Your task to perform on an android device: Open privacy settings Image 0: 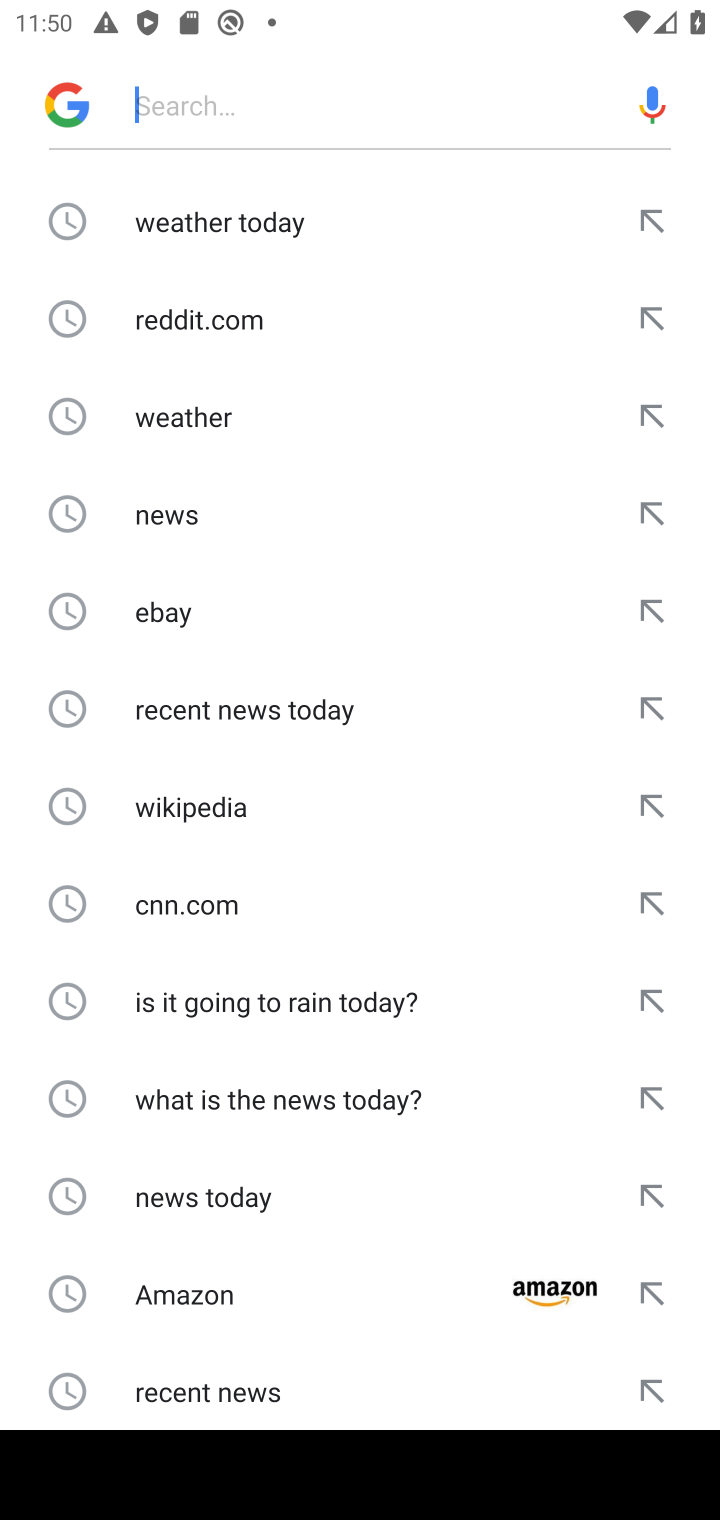
Step 0: press home button
Your task to perform on an android device: Open privacy settings Image 1: 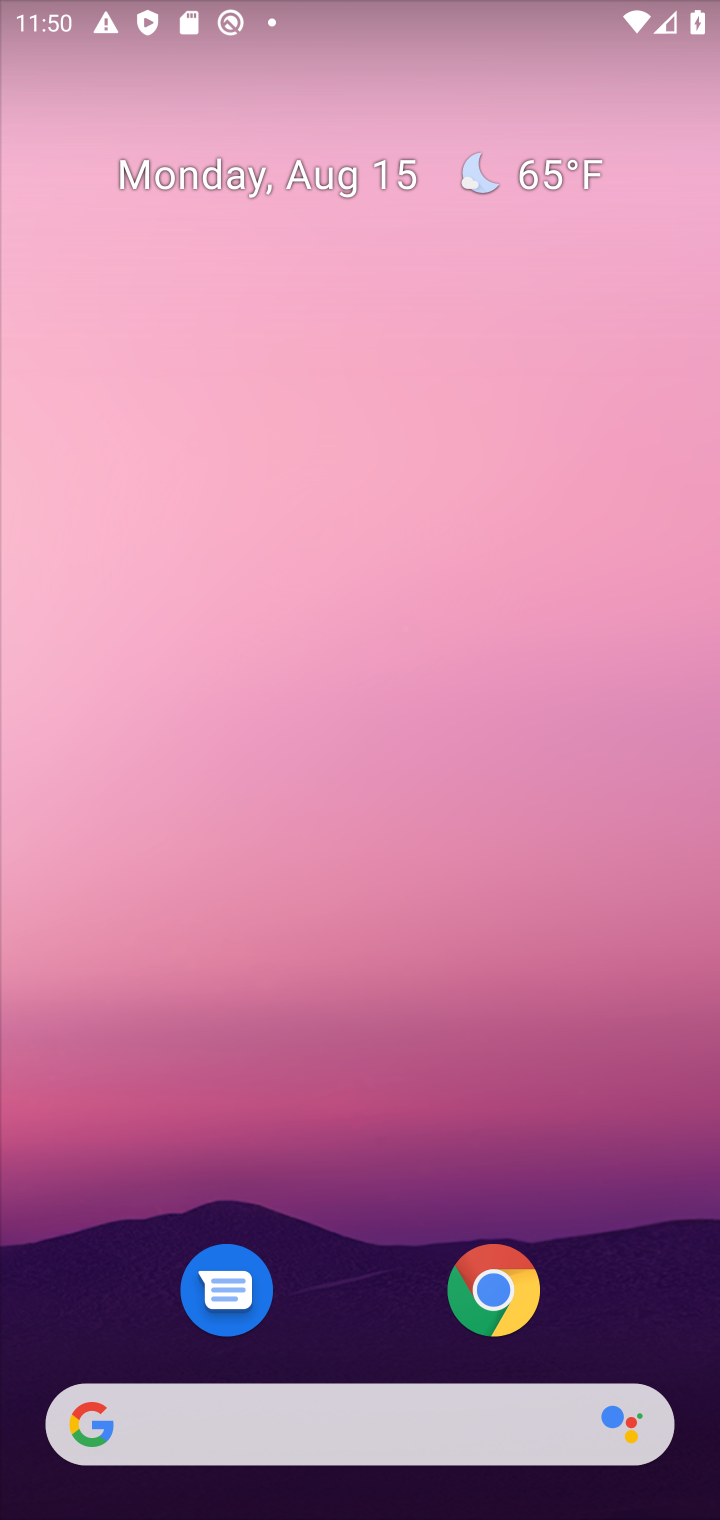
Step 1: drag from (39, 1253) to (567, 21)
Your task to perform on an android device: Open privacy settings Image 2: 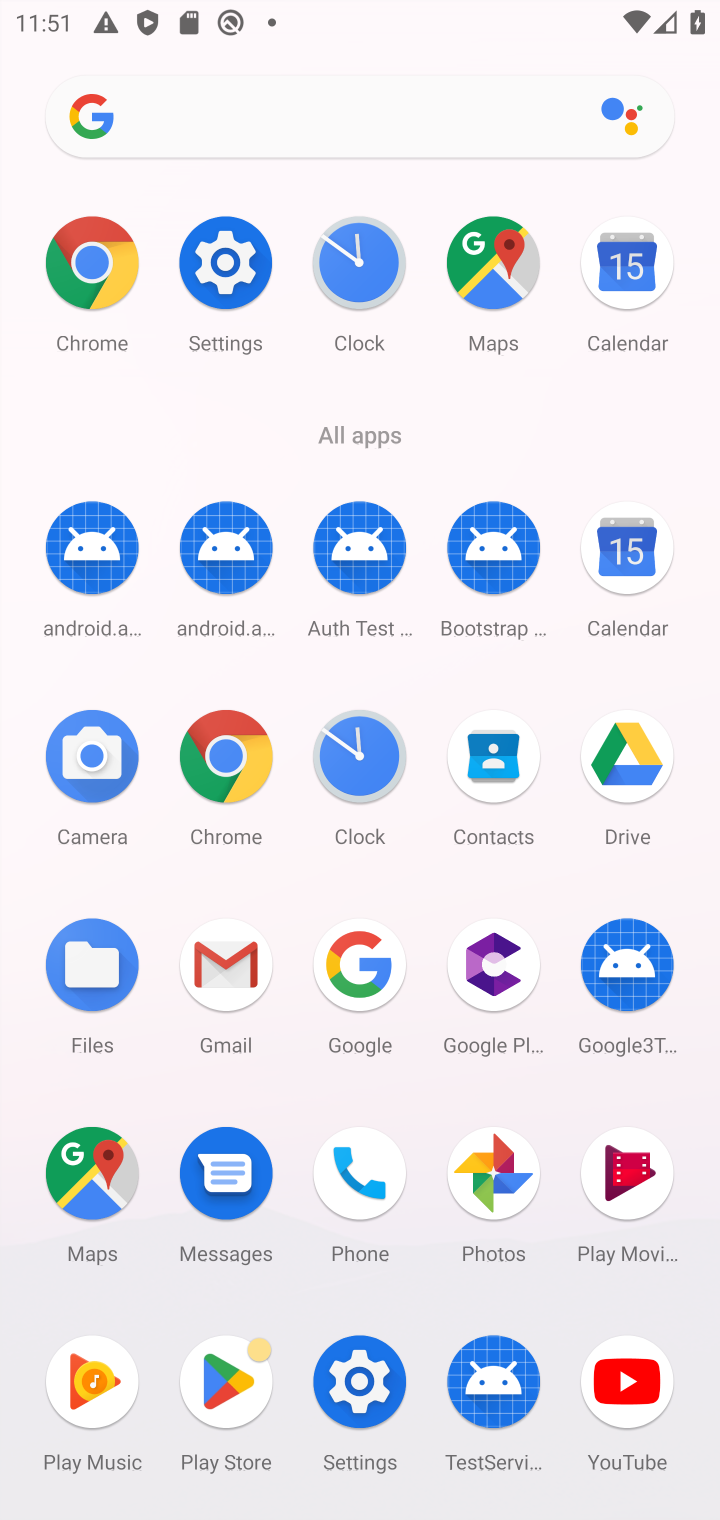
Step 2: click (239, 263)
Your task to perform on an android device: Open privacy settings Image 3: 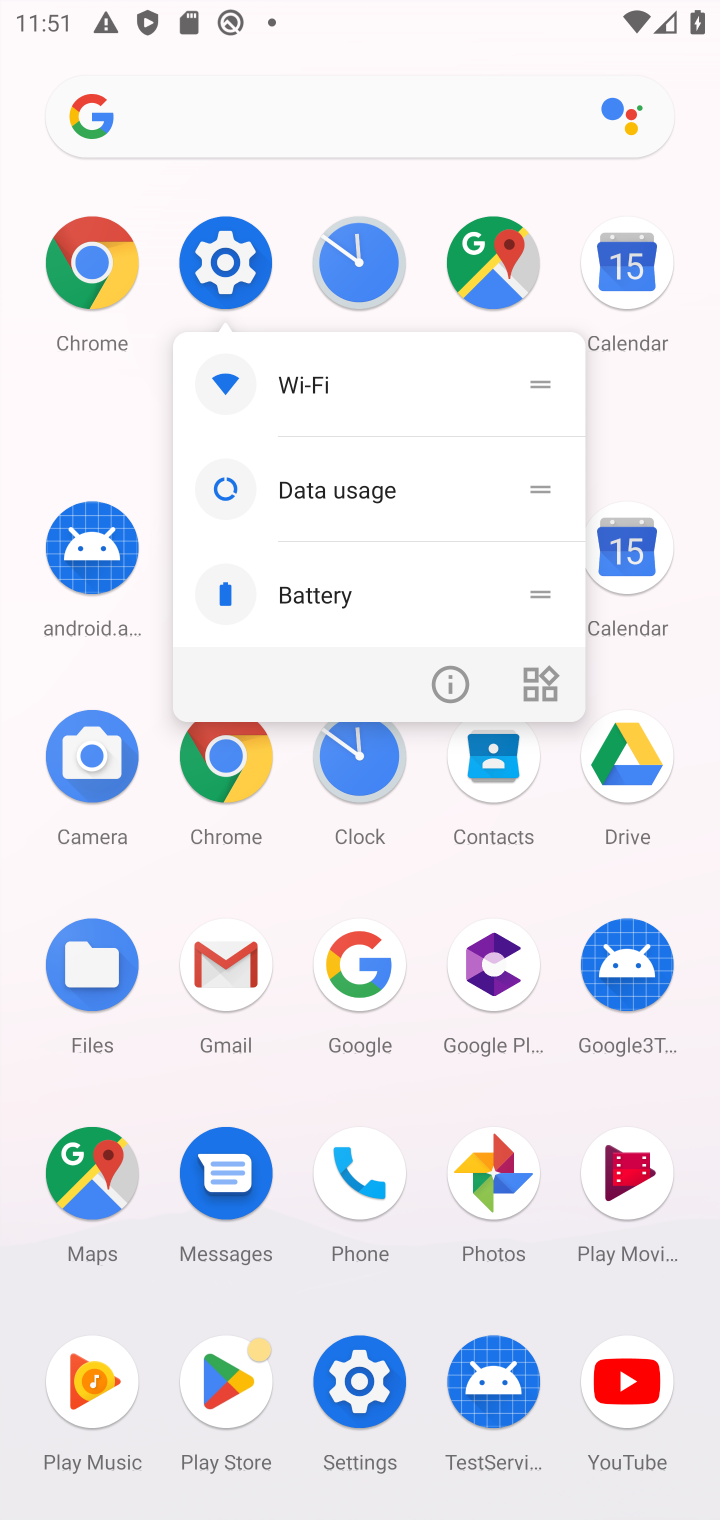
Step 3: click (262, 263)
Your task to perform on an android device: Open privacy settings Image 4: 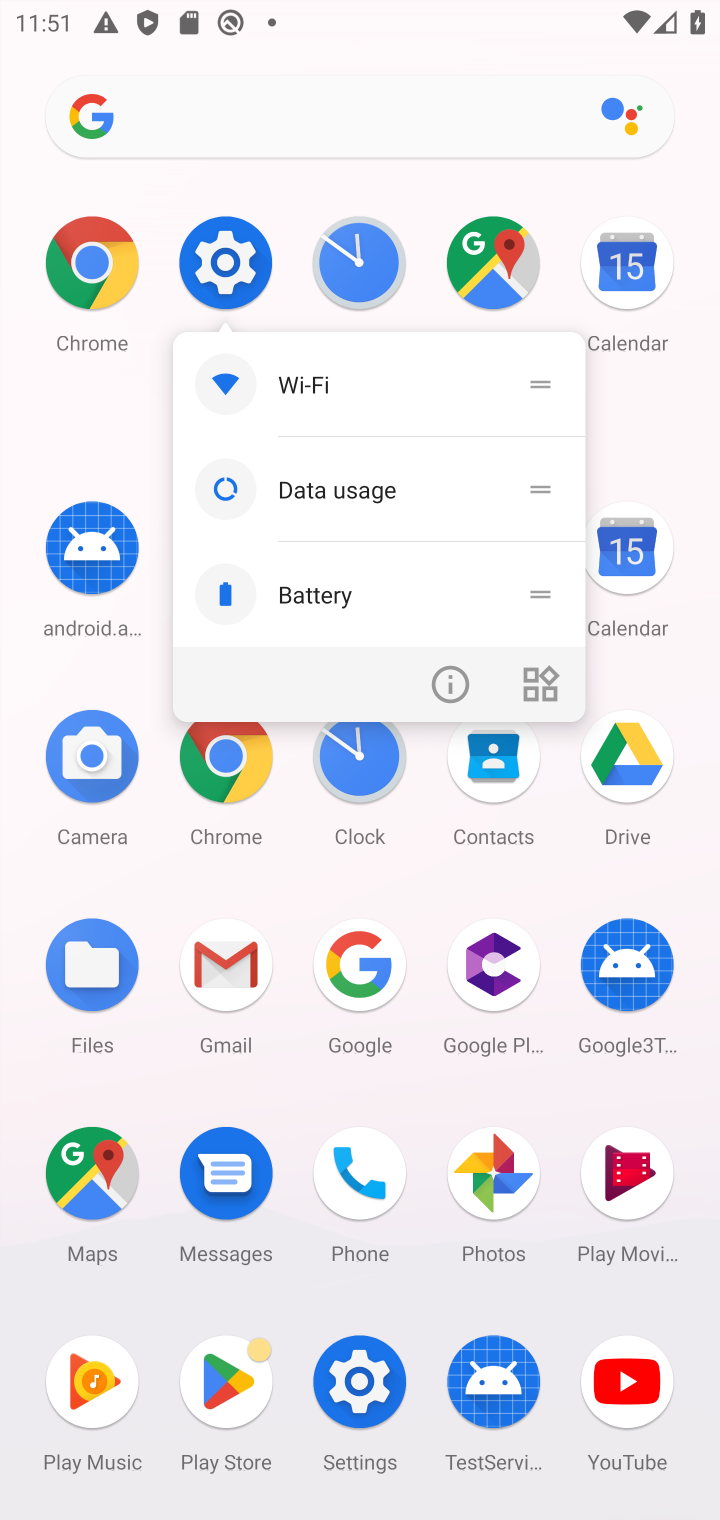
Step 4: click (200, 252)
Your task to perform on an android device: Open privacy settings Image 5: 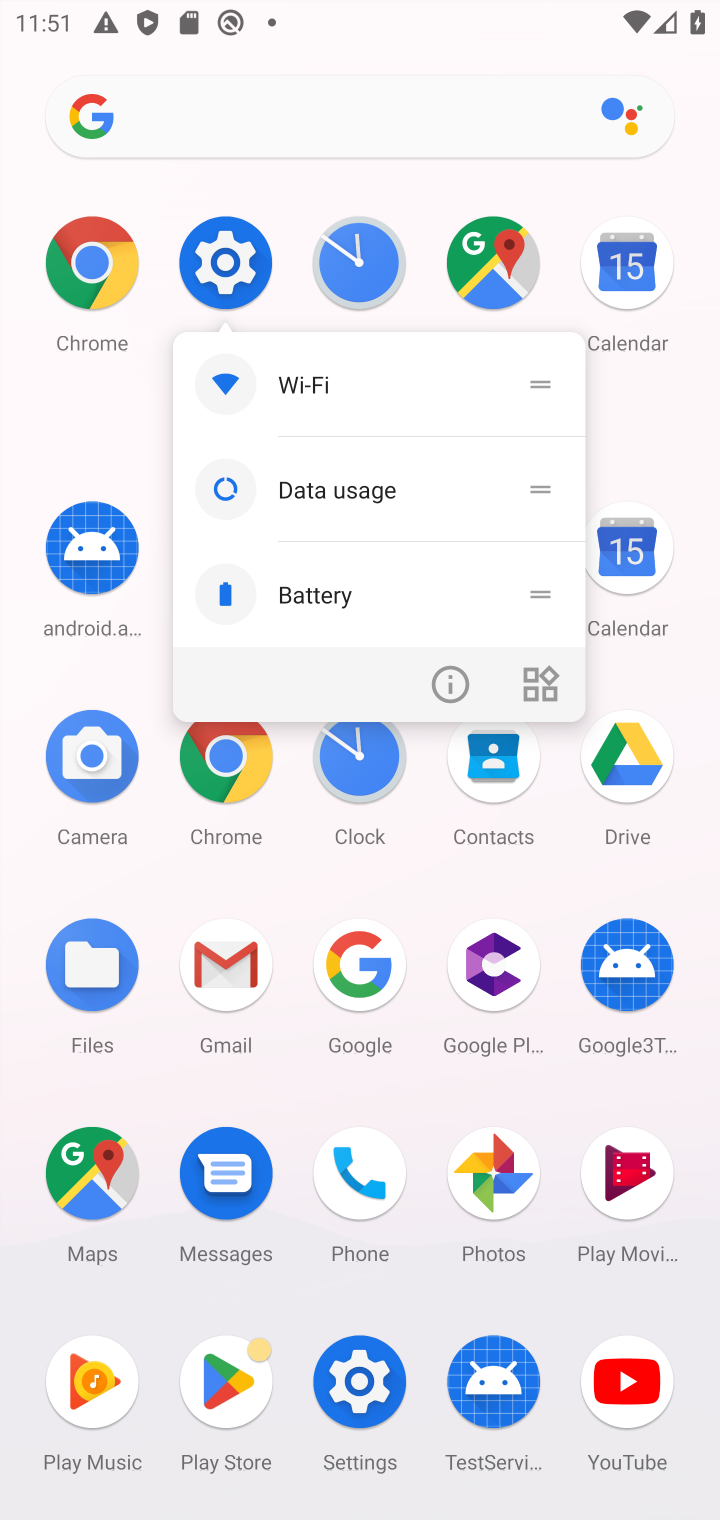
Step 5: click (206, 250)
Your task to perform on an android device: Open privacy settings Image 6: 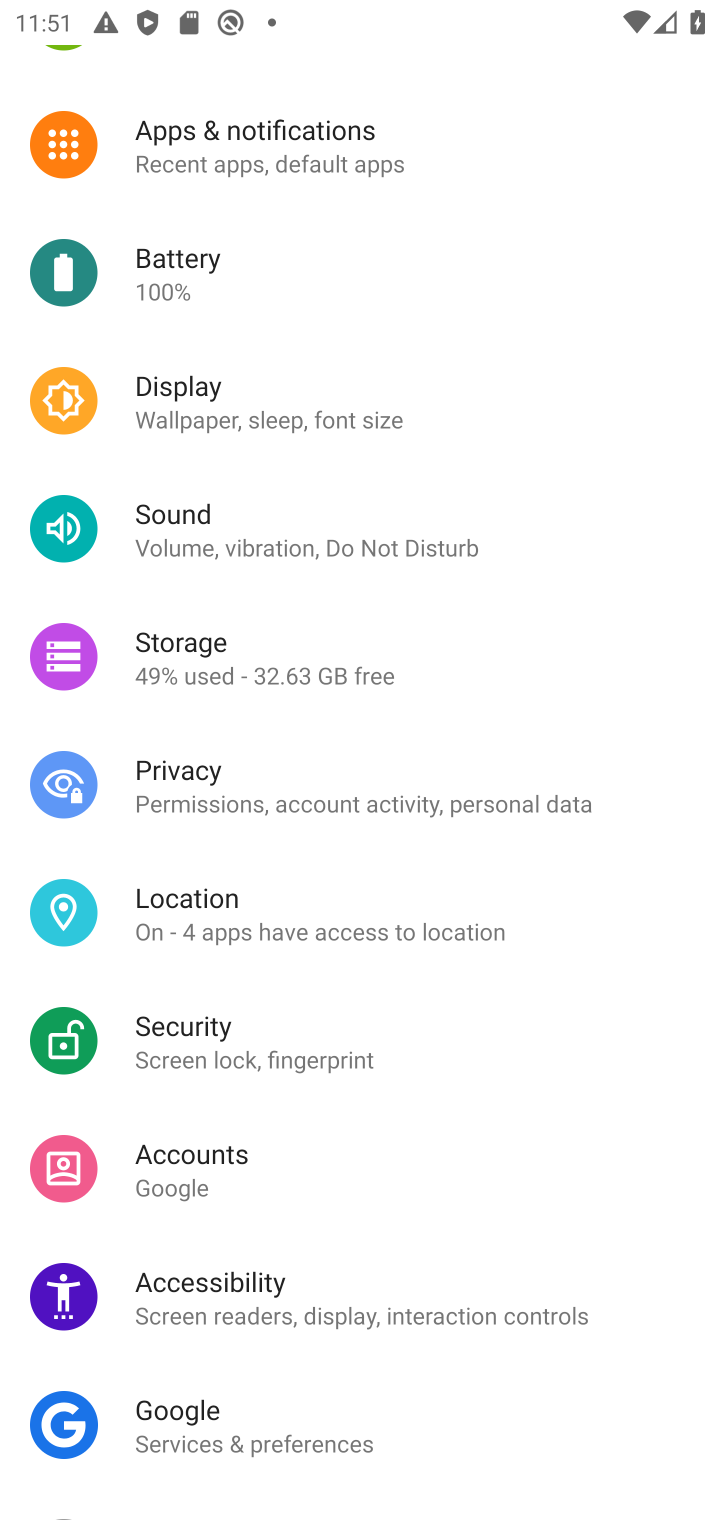
Step 6: drag from (588, 201) to (338, 1269)
Your task to perform on an android device: Open privacy settings Image 7: 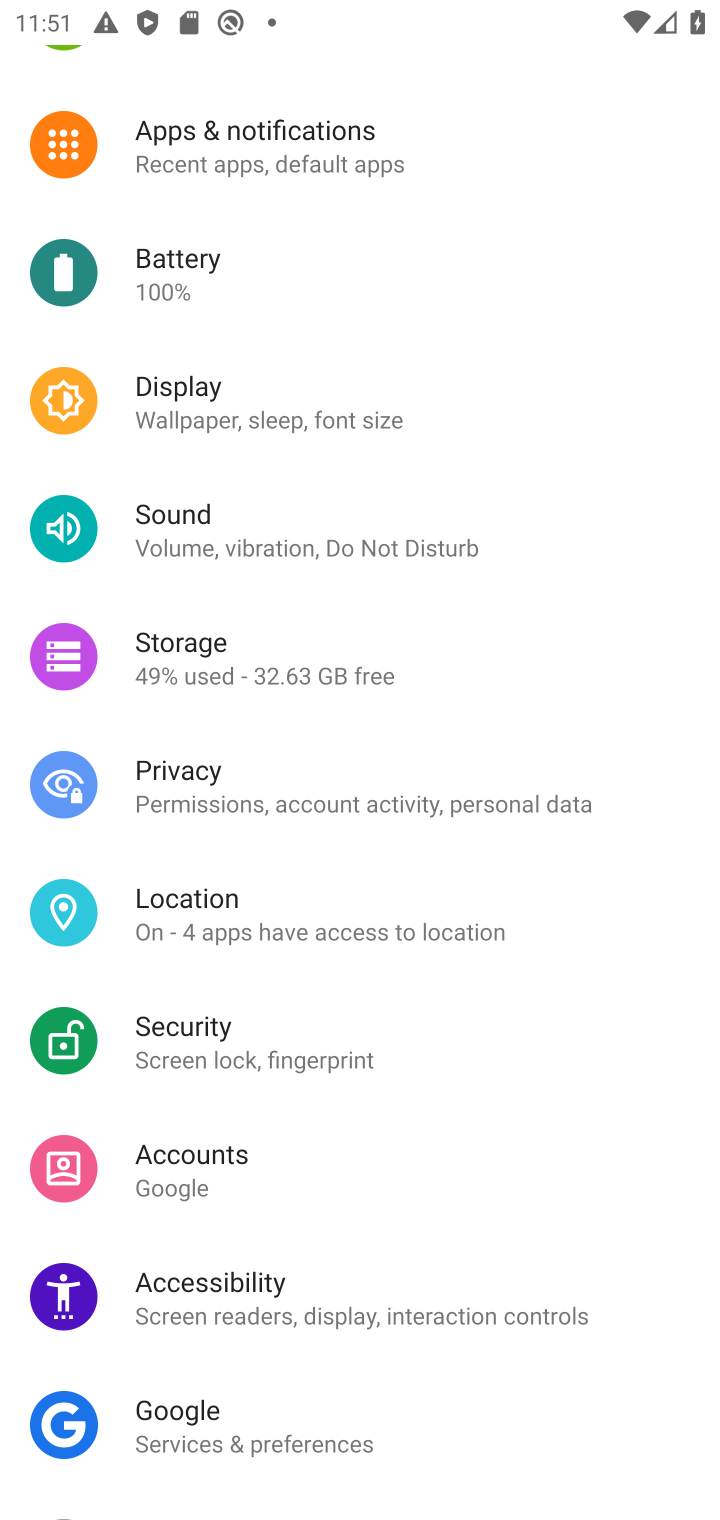
Step 7: drag from (436, 175) to (359, 1229)
Your task to perform on an android device: Open privacy settings Image 8: 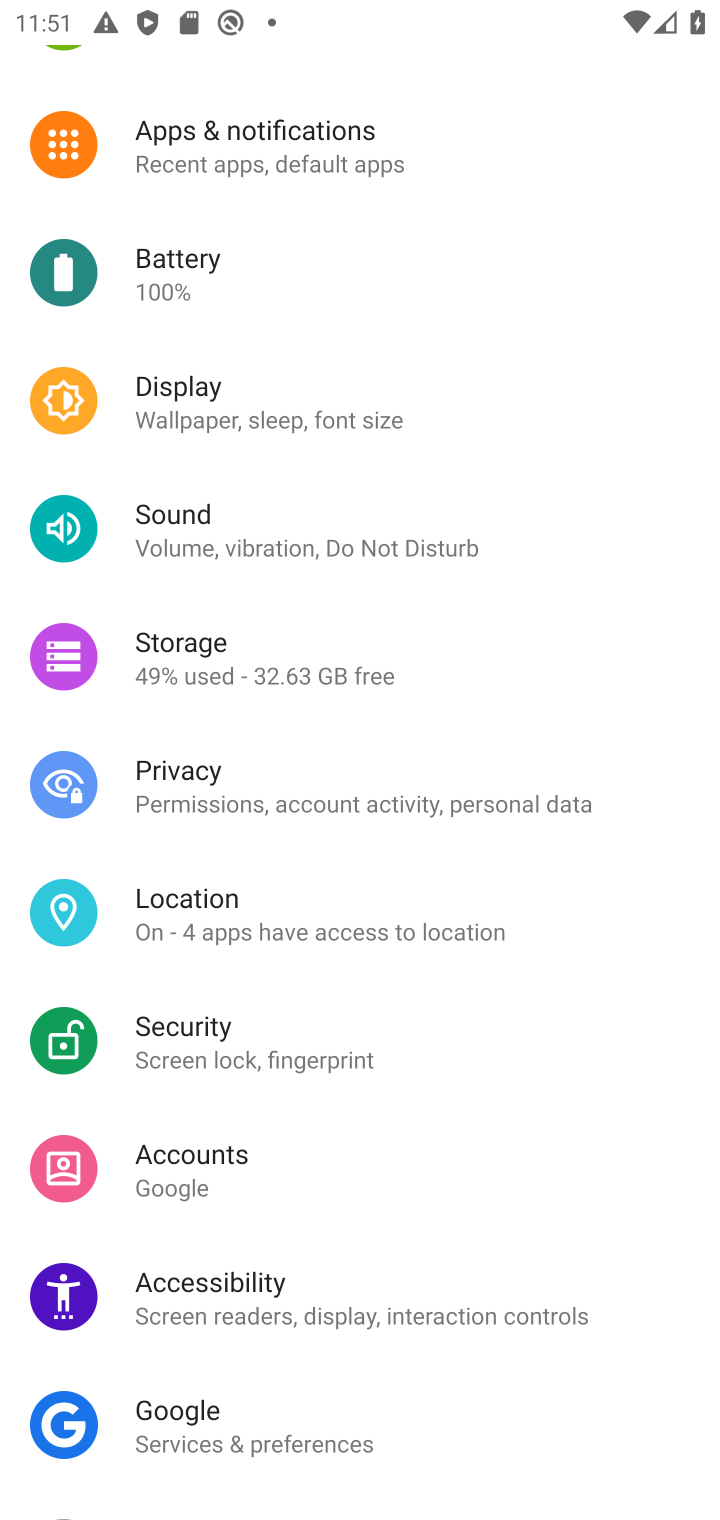
Step 8: drag from (166, 307) to (381, 1498)
Your task to perform on an android device: Open privacy settings Image 9: 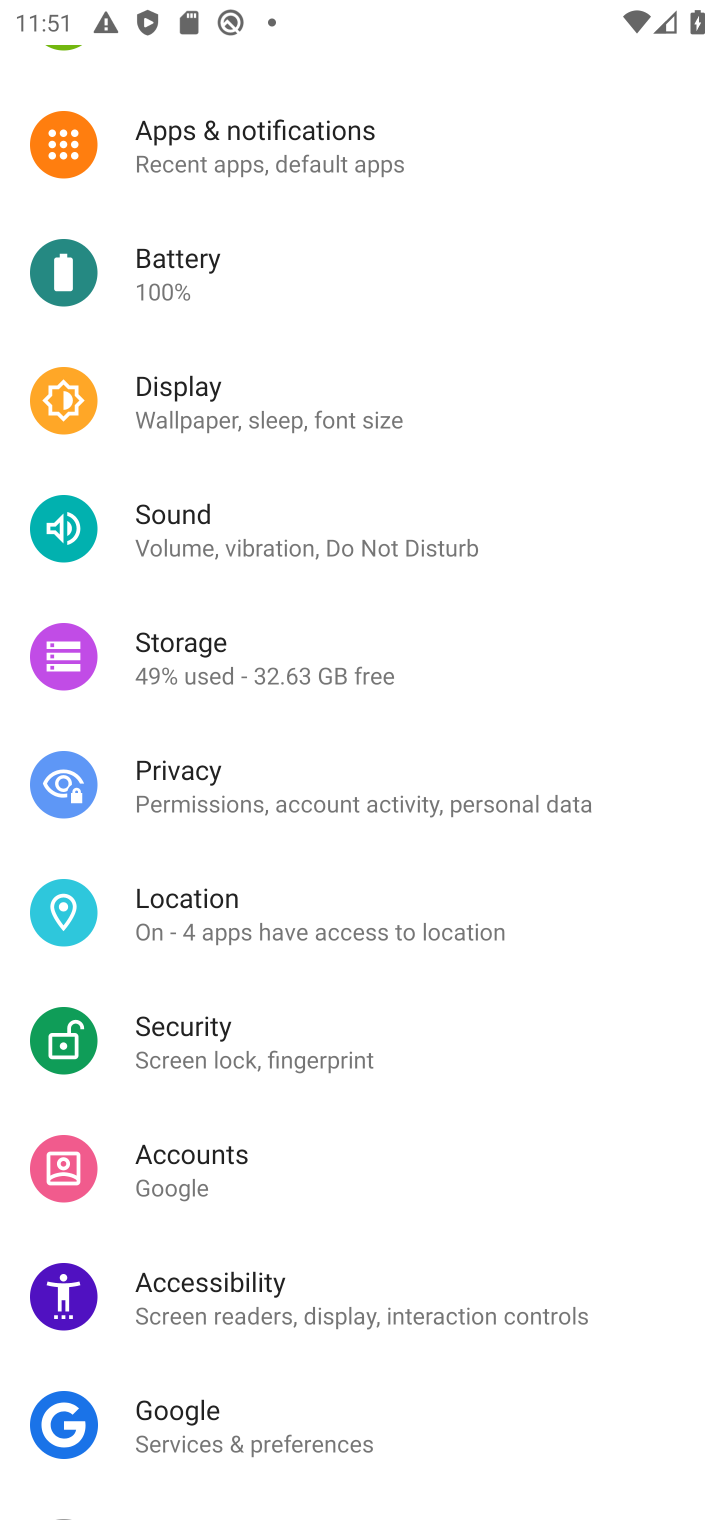
Step 9: drag from (617, 269) to (455, 1394)
Your task to perform on an android device: Open privacy settings Image 10: 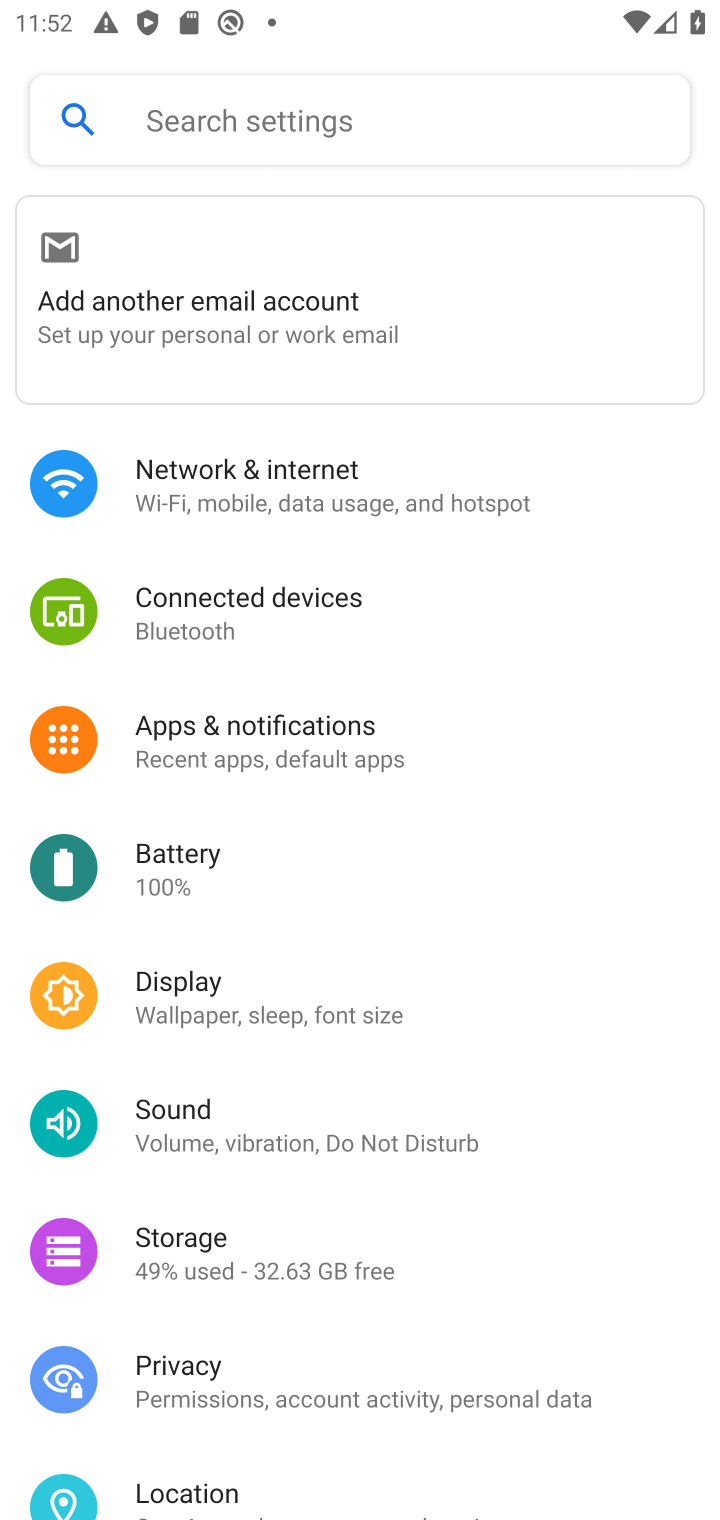
Step 10: drag from (94, 1415) to (380, 602)
Your task to perform on an android device: Open privacy settings Image 11: 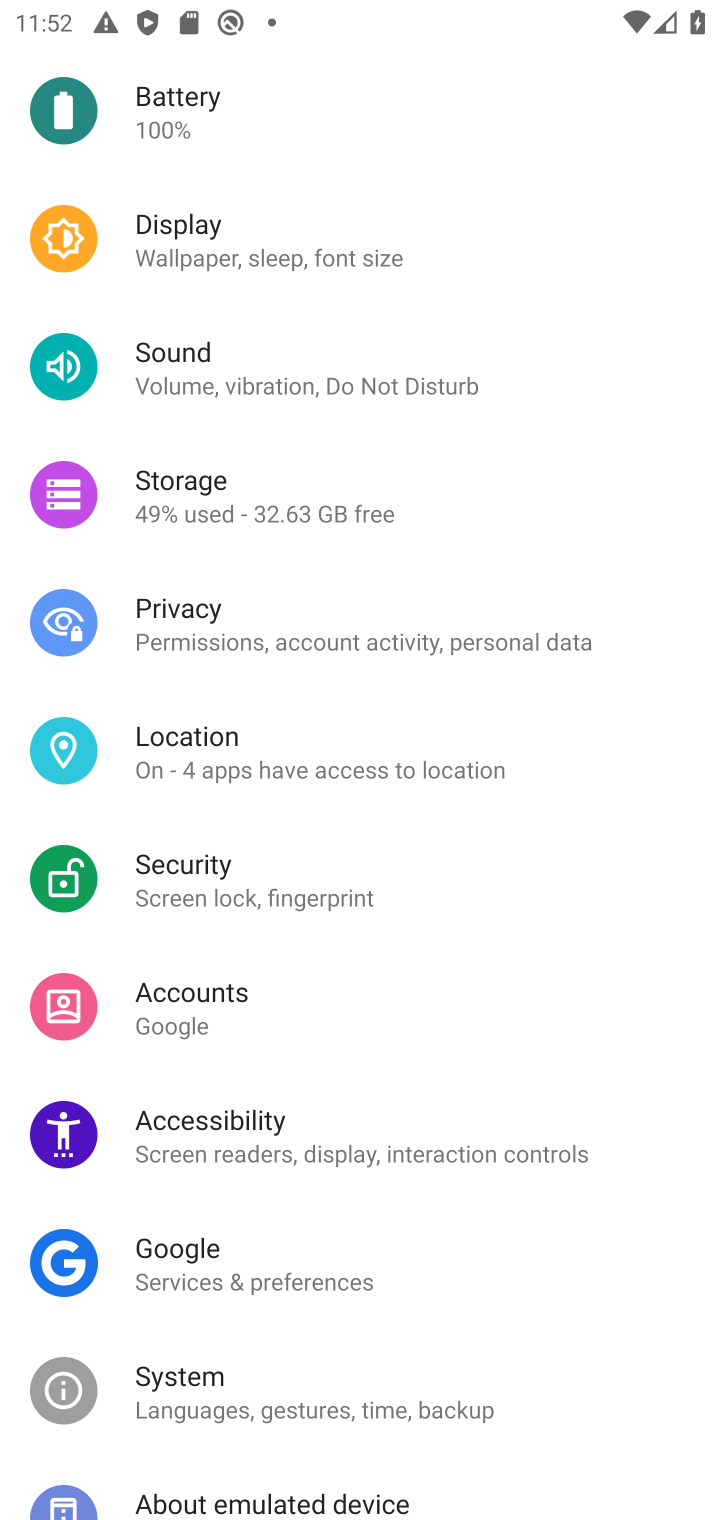
Step 11: click (208, 634)
Your task to perform on an android device: Open privacy settings Image 12: 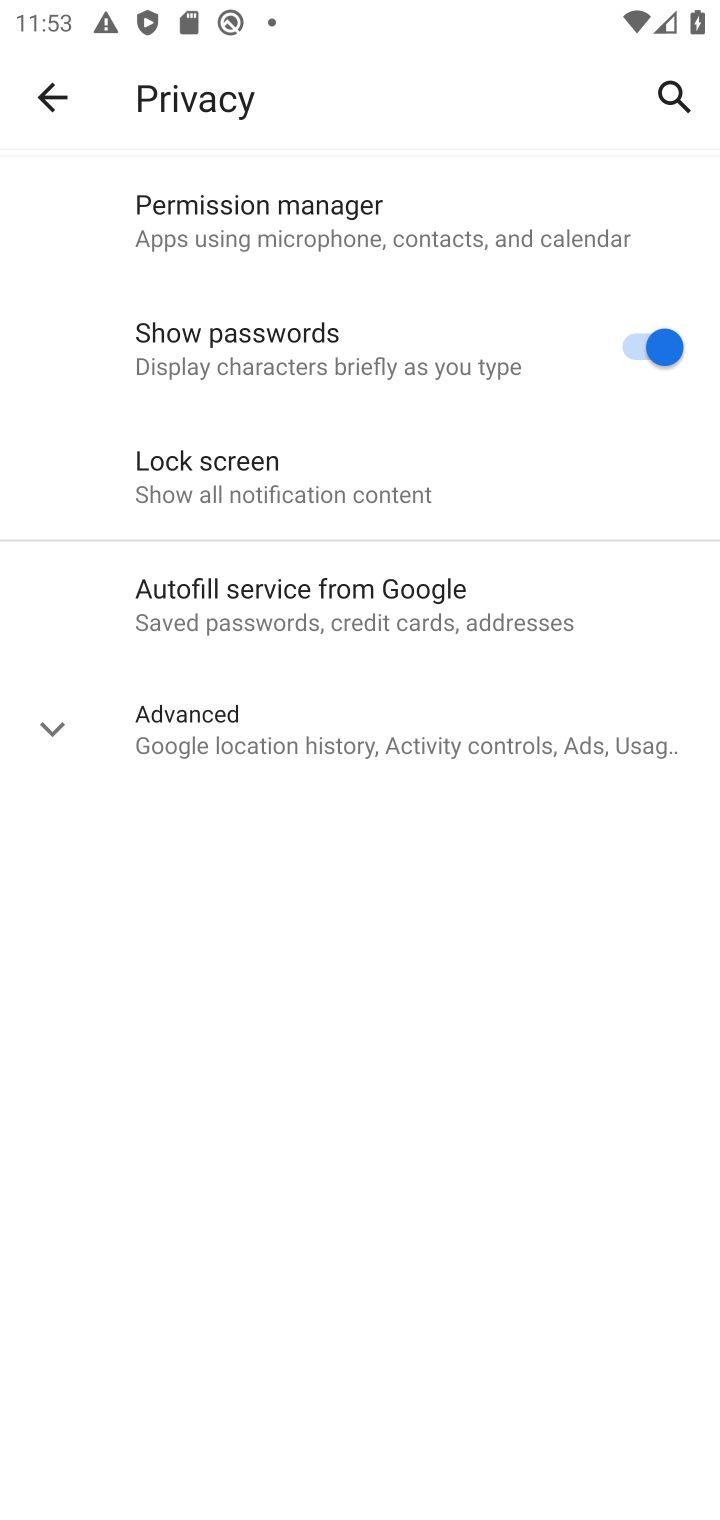
Step 12: task complete